Your task to perform on an android device: Find coffee shops on Maps Image 0: 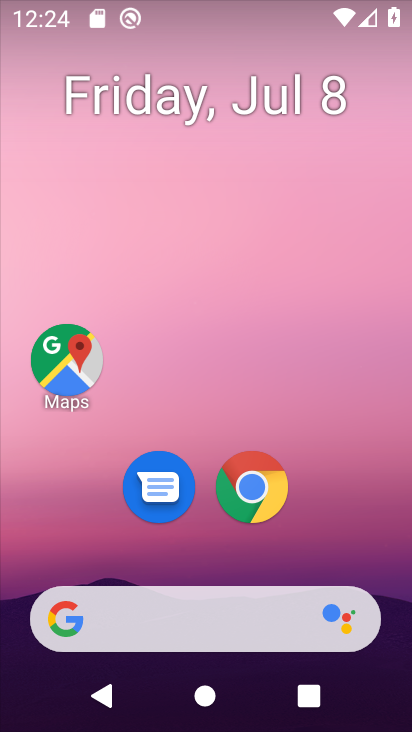
Step 0: drag from (375, 559) to (395, 211)
Your task to perform on an android device: Find coffee shops on Maps Image 1: 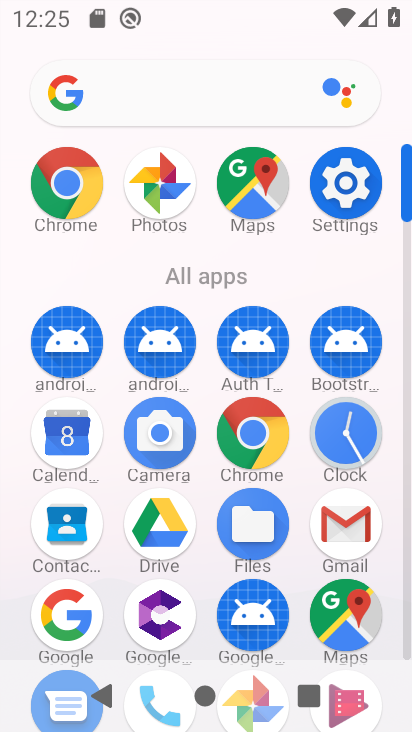
Step 1: click (353, 608)
Your task to perform on an android device: Find coffee shops on Maps Image 2: 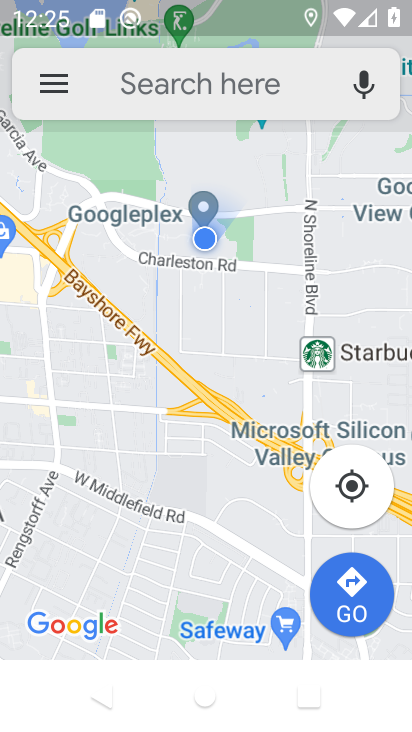
Step 2: click (223, 91)
Your task to perform on an android device: Find coffee shops on Maps Image 3: 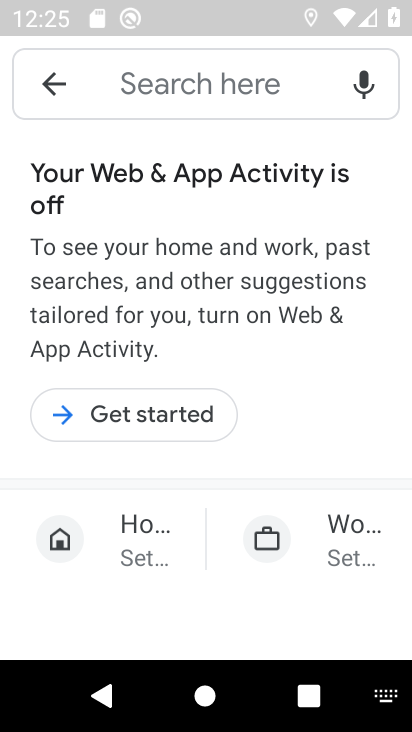
Step 3: type "coffee shops"
Your task to perform on an android device: Find coffee shops on Maps Image 4: 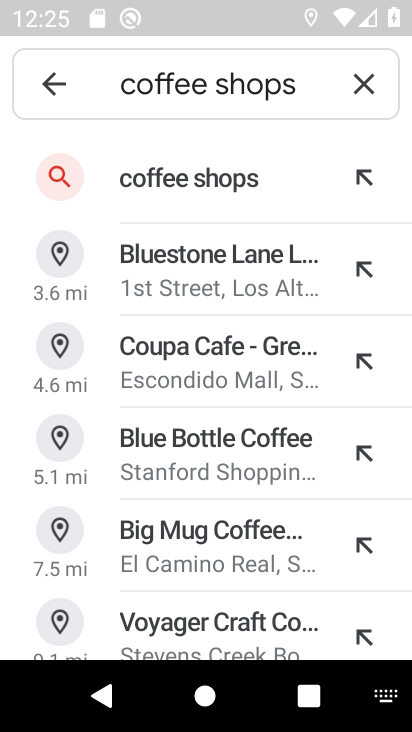
Step 4: click (289, 203)
Your task to perform on an android device: Find coffee shops on Maps Image 5: 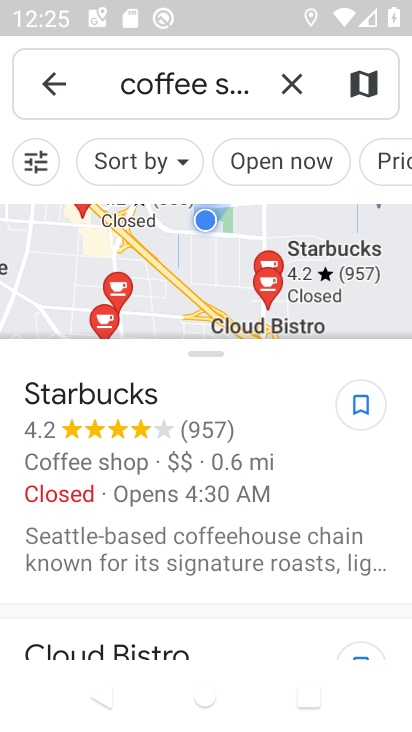
Step 5: task complete